Your task to perform on an android device: Open the map Image 0: 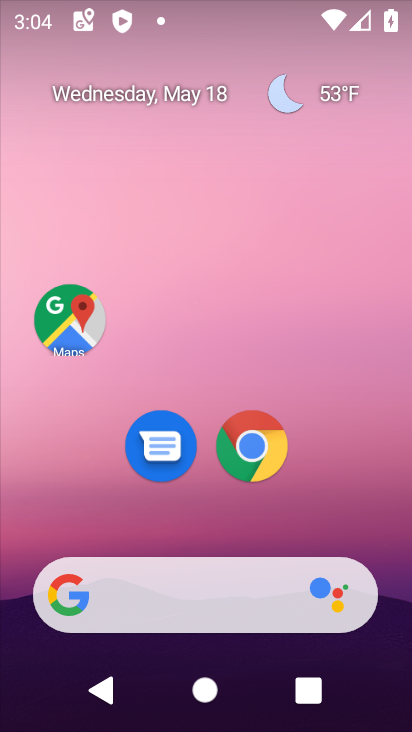
Step 0: click (60, 316)
Your task to perform on an android device: Open the map Image 1: 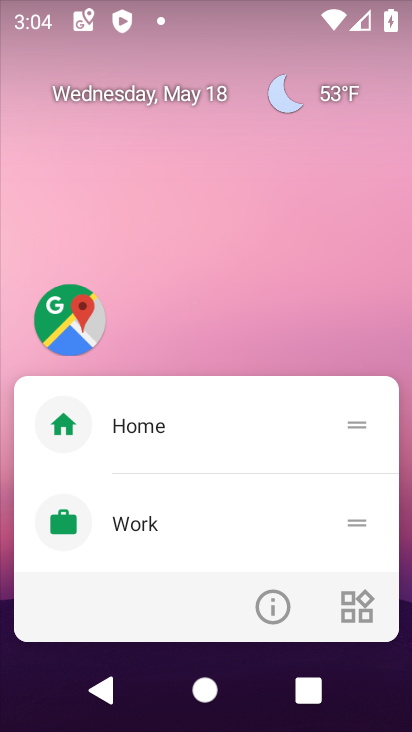
Step 1: click (91, 357)
Your task to perform on an android device: Open the map Image 2: 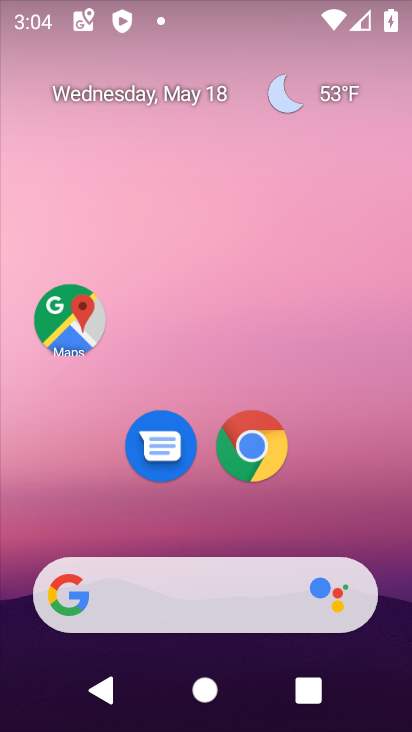
Step 2: click (64, 323)
Your task to perform on an android device: Open the map Image 3: 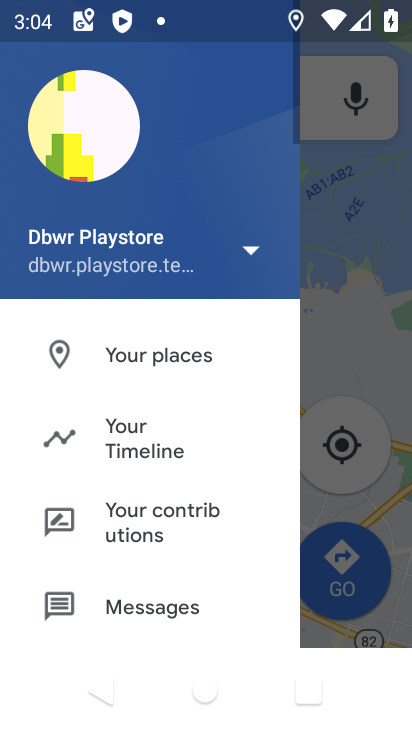
Step 3: click (321, 350)
Your task to perform on an android device: Open the map Image 4: 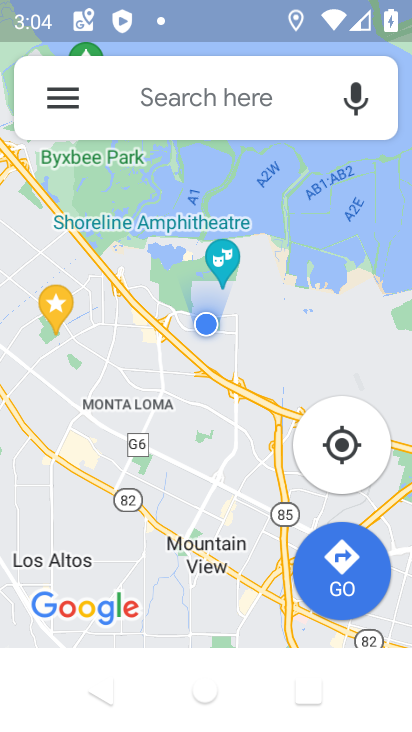
Step 4: task complete